Your task to perform on an android device: Is it going to rain this weekend? Image 0: 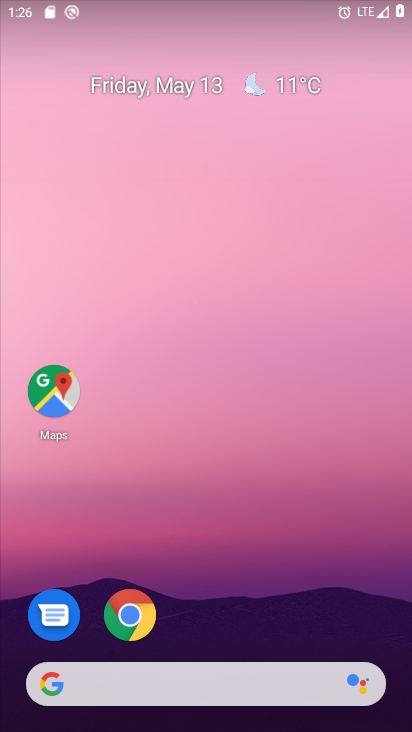
Step 0: click (290, 81)
Your task to perform on an android device: Is it going to rain this weekend? Image 1: 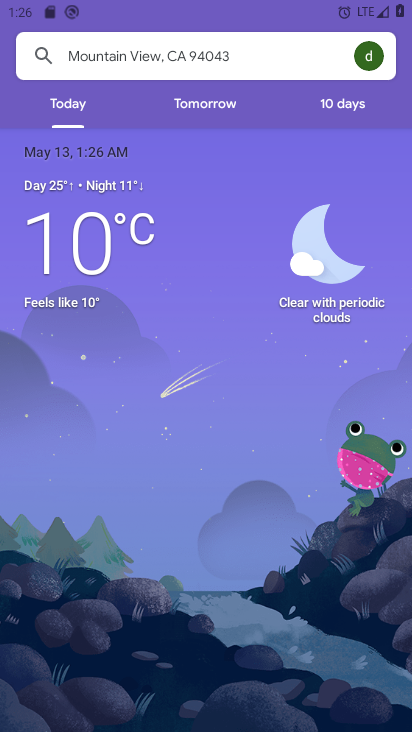
Step 1: click (341, 98)
Your task to perform on an android device: Is it going to rain this weekend? Image 2: 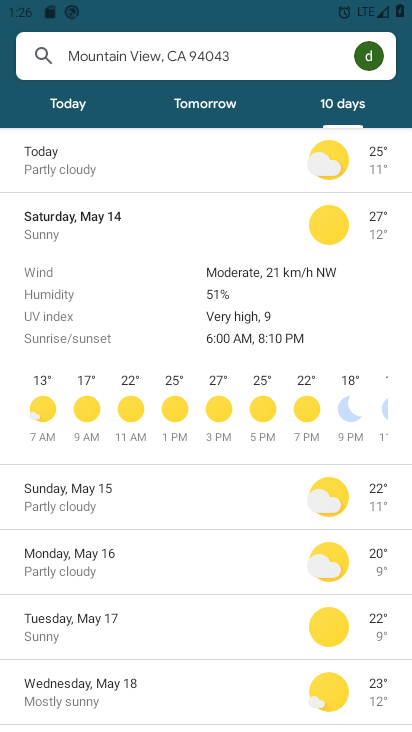
Step 2: click (101, 238)
Your task to perform on an android device: Is it going to rain this weekend? Image 3: 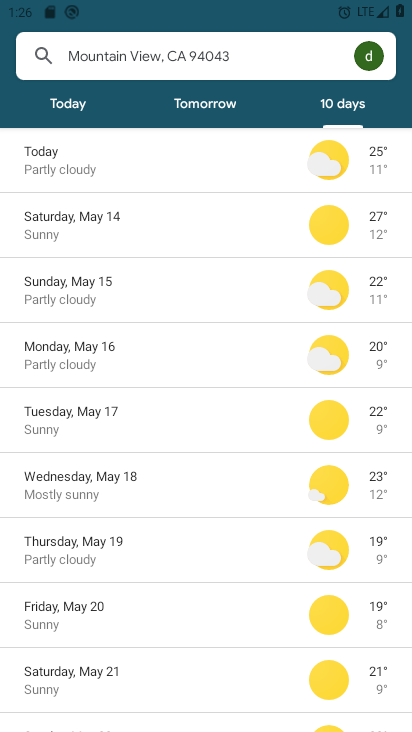
Step 3: click (109, 223)
Your task to perform on an android device: Is it going to rain this weekend? Image 4: 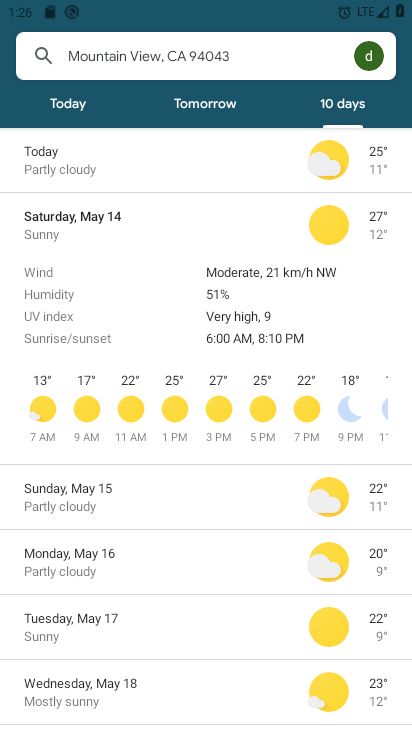
Step 4: task complete